Your task to perform on an android device: Open Google Image 0: 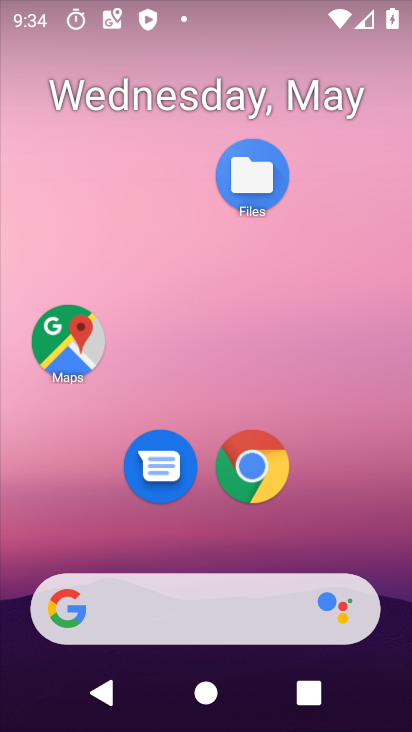
Step 0: drag from (380, 672) to (188, 190)
Your task to perform on an android device: Open Google Image 1: 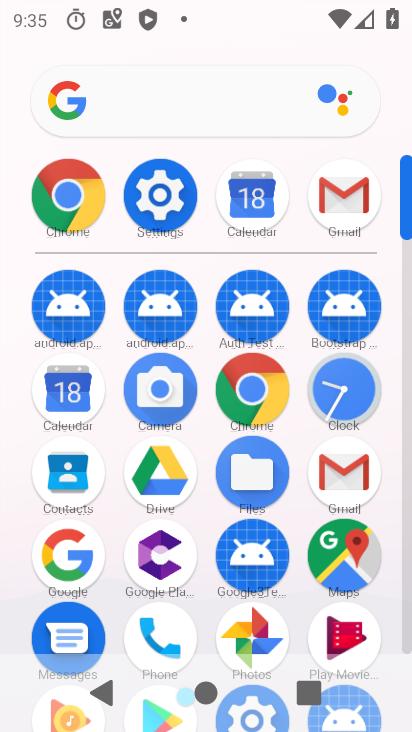
Step 1: click (71, 556)
Your task to perform on an android device: Open Google Image 2: 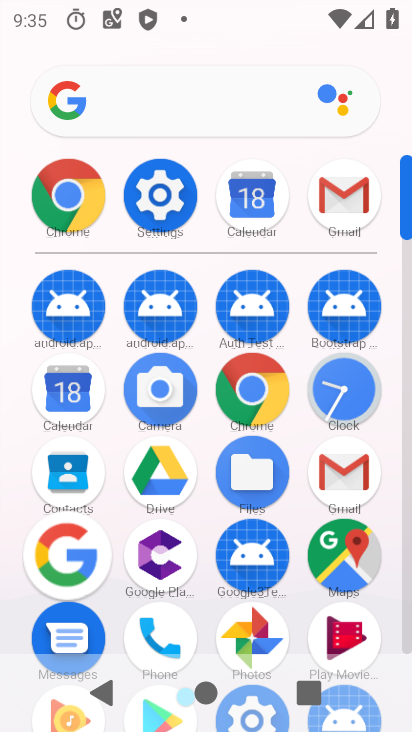
Step 2: click (71, 556)
Your task to perform on an android device: Open Google Image 3: 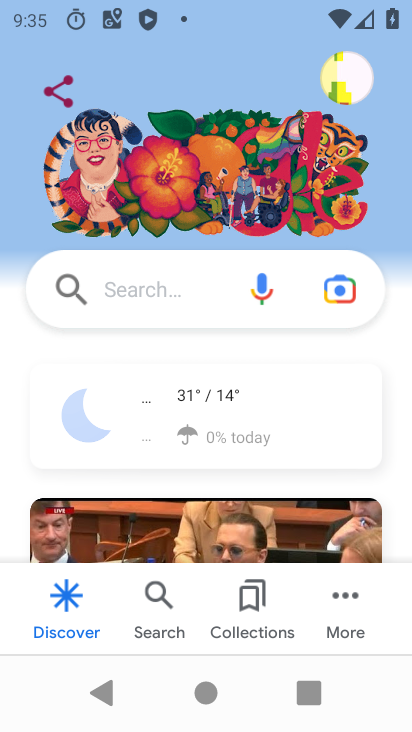
Step 3: task complete